Your task to perform on an android device: Go to Wikipedia Image 0: 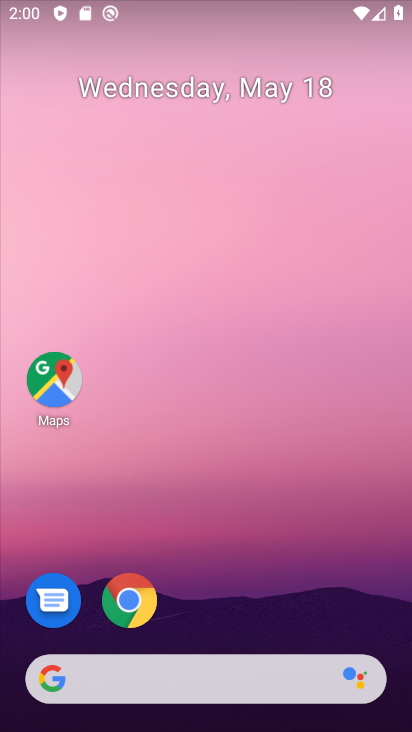
Step 0: press home button
Your task to perform on an android device: Go to Wikipedia Image 1: 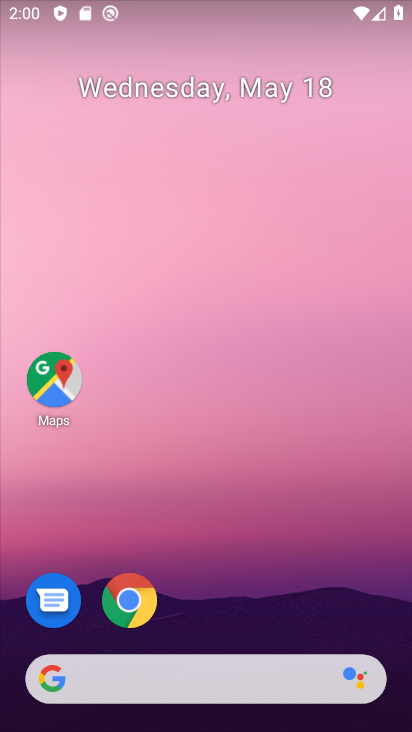
Step 1: click (123, 603)
Your task to perform on an android device: Go to Wikipedia Image 2: 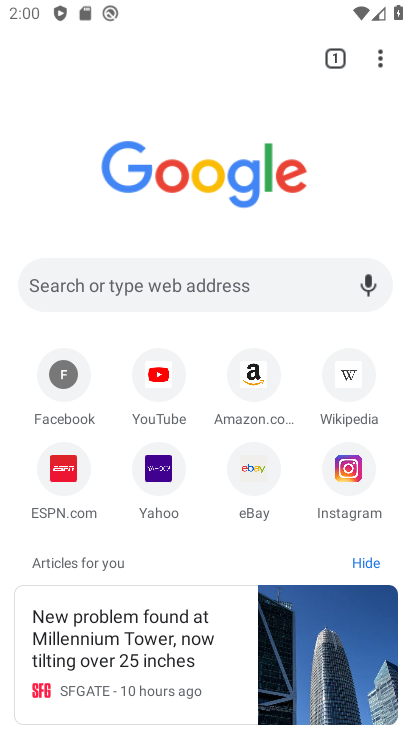
Step 2: click (349, 383)
Your task to perform on an android device: Go to Wikipedia Image 3: 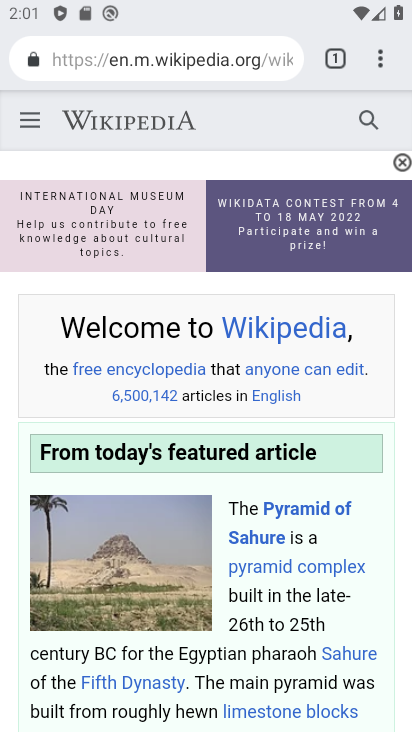
Step 3: task complete